Your task to perform on an android device: Find coffee shops on Maps Image 0: 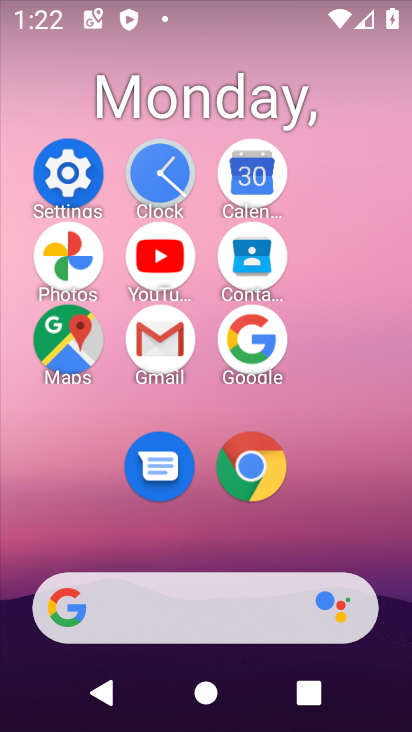
Step 0: click (80, 344)
Your task to perform on an android device: Find coffee shops on Maps Image 1: 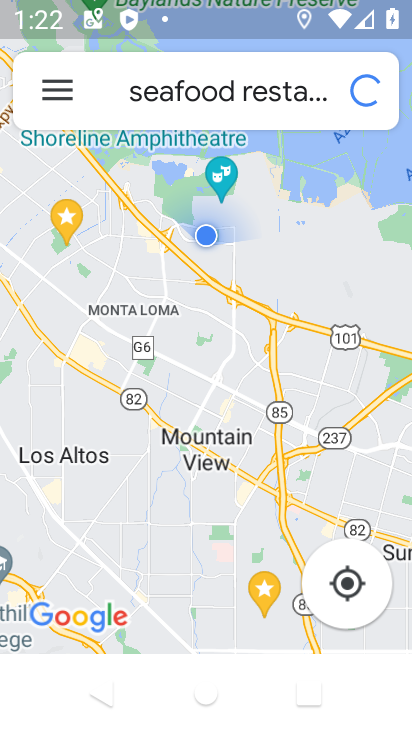
Step 1: click (222, 97)
Your task to perform on an android device: Find coffee shops on Maps Image 2: 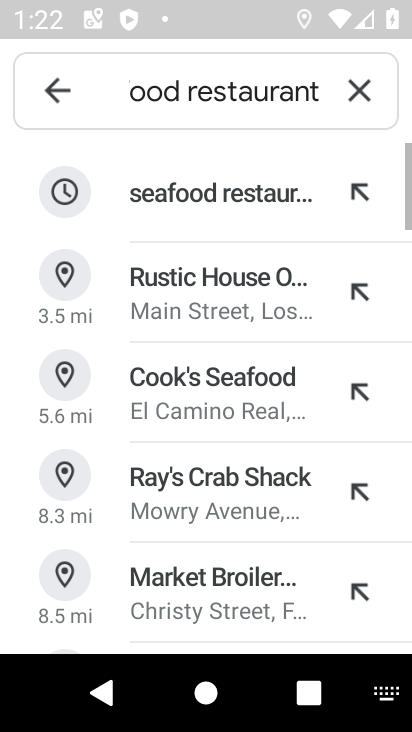
Step 2: click (353, 82)
Your task to perform on an android device: Find coffee shops on Maps Image 3: 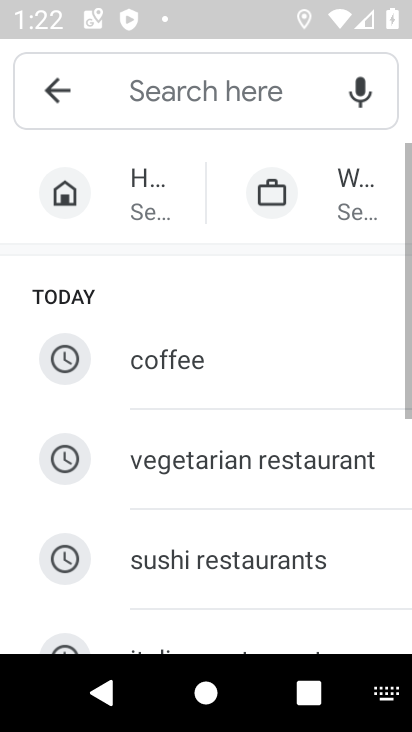
Step 3: click (209, 88)
Your task to perform on an android device: Find coffee shops on Maps Image 4: 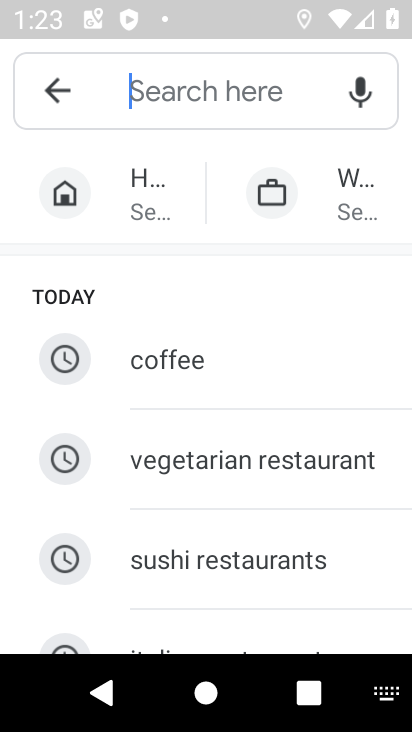
Step 4: type "coffee shops"
Your task to perform on an android device: Find coffee shops on Maps Image 5: 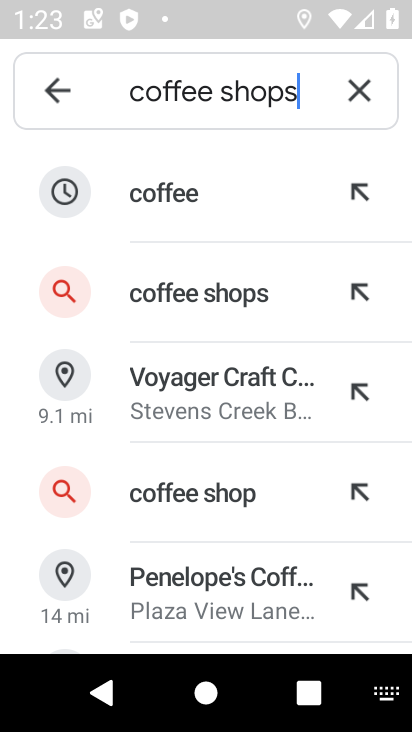
Step 5: task complete